Your task to perform on an android device: Go to Google Image 0: 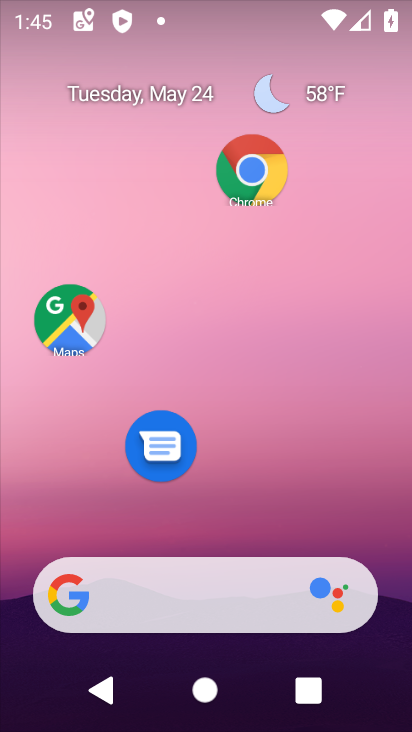
Step 0: drag from (143, 618) to (129, 144)
Your task to perform on an android device: Go to Google Image 1: 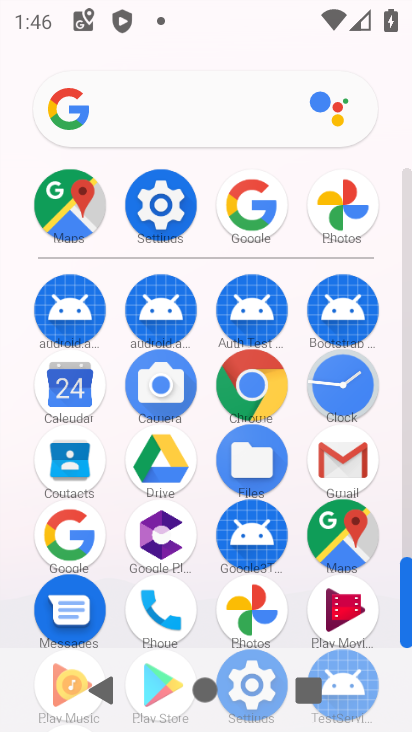
Step 1: click (83, 544)
Your task to perform on an android device: Go to Google Image 2: 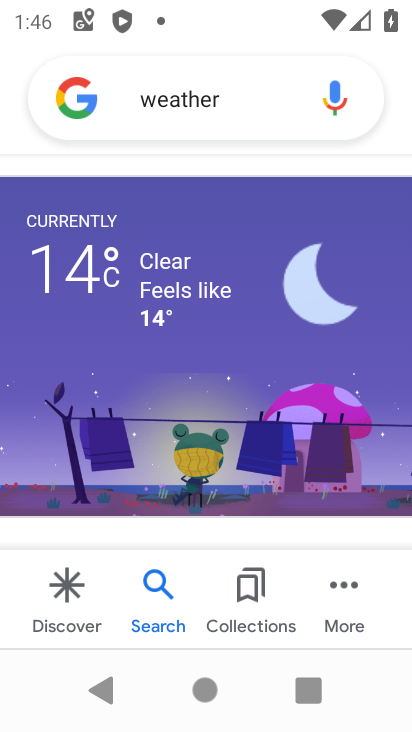
Step 2: task complete